Your task to perform on an android device: Show me productivity apps on the Play Store Image 0: 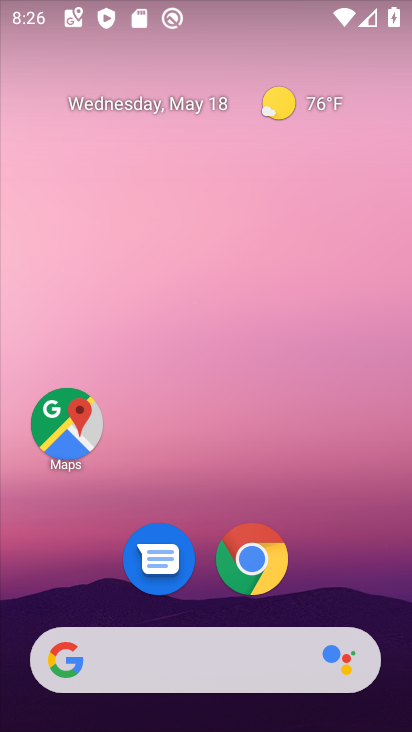
Step 0: drag from (328, 569) to (352, 55)
Your task to perform on an android device: Show me productivity apps on the Play Store Image 1: 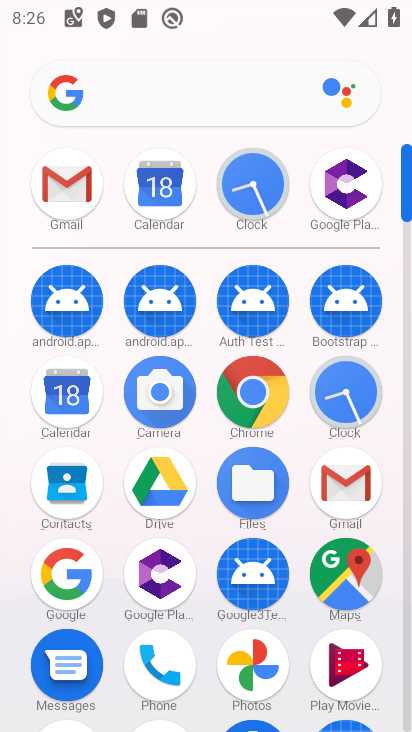
Step 1: drag from (203, 526) to (240, 137)
Your task to perform on an android device: Show me productivity apps on the Play Store Image 2: 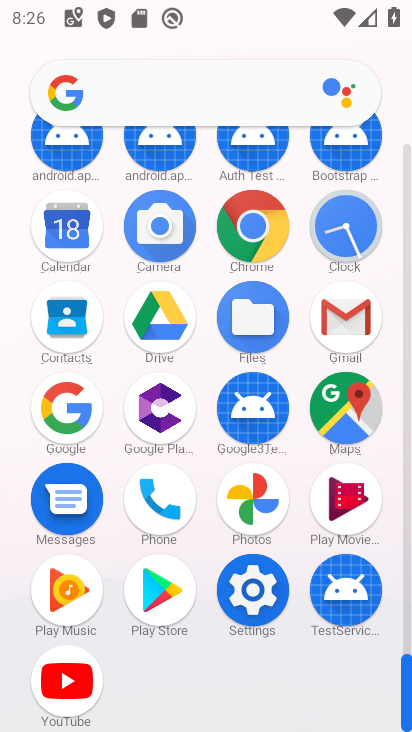
Step 2: click (150, 572)
Your task to perform on an android device: Show me productivity apps on the Play Store Image 3: 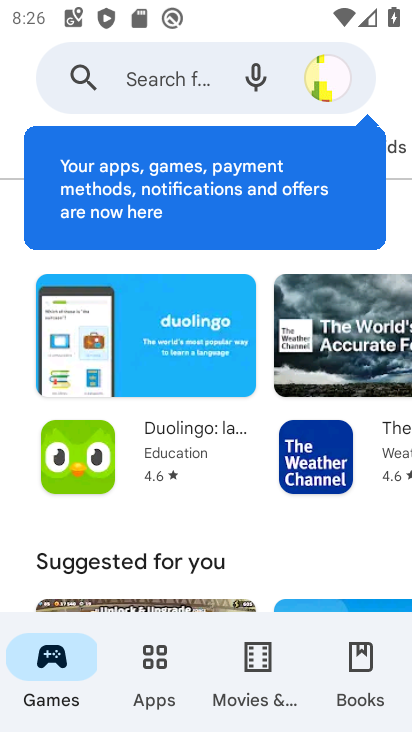
Step 3: click (154, 682)
Your task to perform on an android device: Show me productivity apps on the Play Store Image 4: 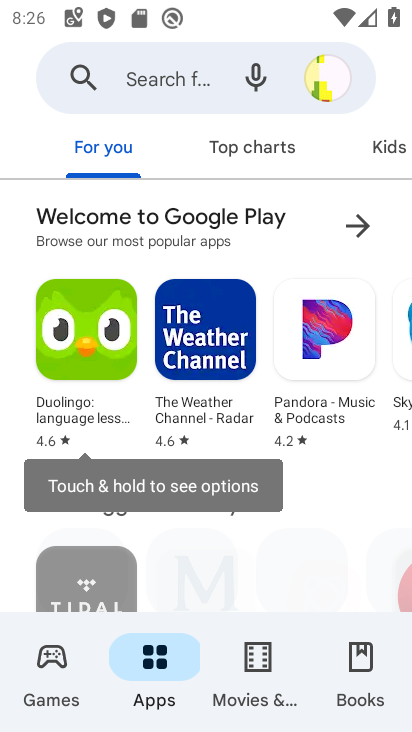
Step 4: drag from (342, 165) to (8, 171)
Your task to perform on an android device: Show me productivity apps on the Play Store Image 5: 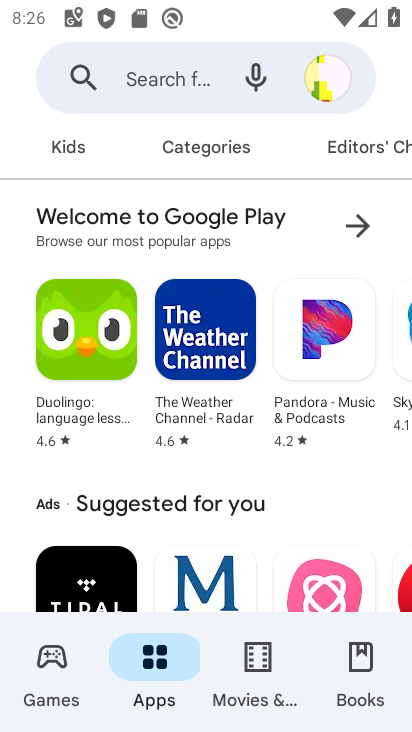
Step 5: click (180, 160)
Your task to perform on an android device: Show me productivity apps on the Play Store Image 6: 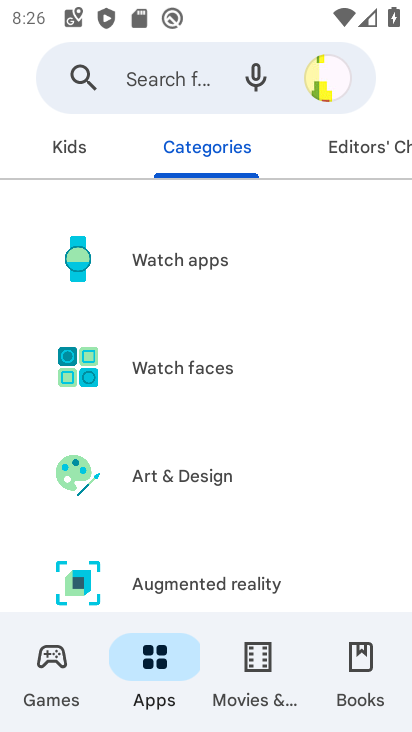
Step 6: drag from (277, 491) to (303, 63)
Your task to perform on an android device: Show me productivity apps on the Play Store Image 7: 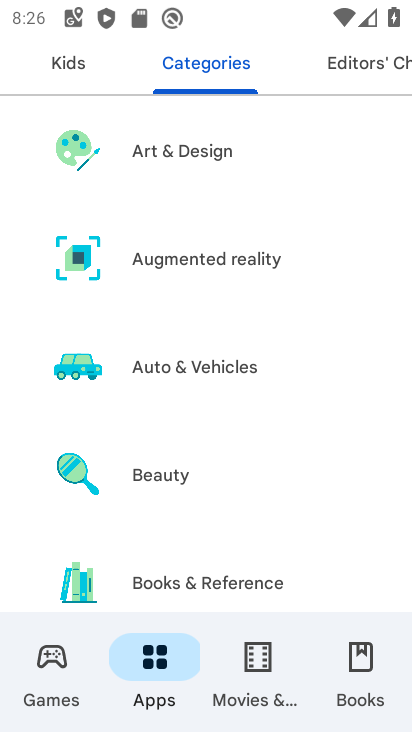
Step 7: drag from (280, 546) to (303, 96)
Your task to perform on an android device: Show me productivity apps on the Play Store Image 8: 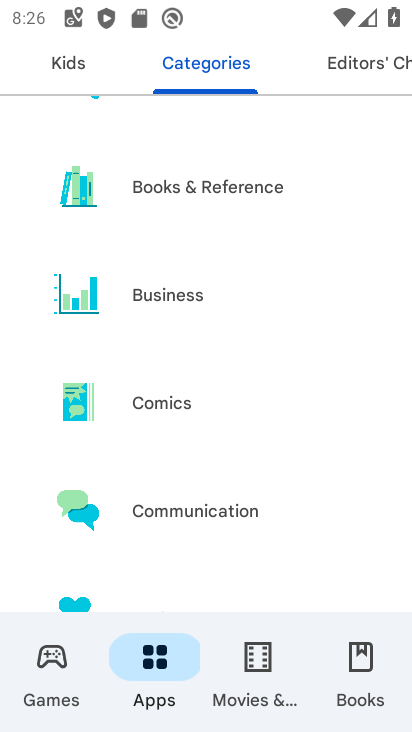
Step 8: drag from (278, 502) to (284, 100)
Your task to perform on an android device: Show me productivity apps on the Play Store Image 9: 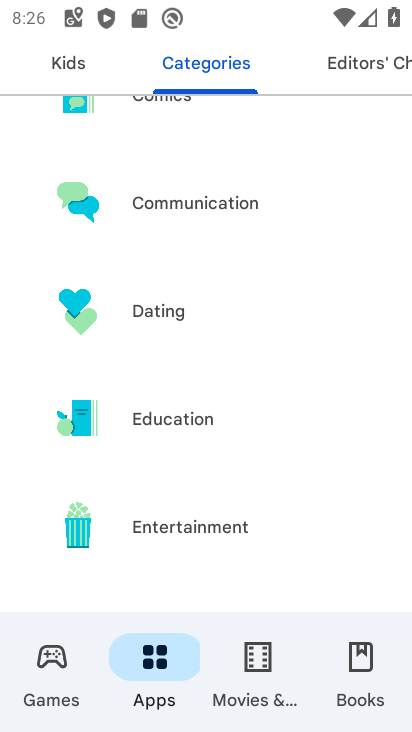
Step 9: drag from (282, 559) to (317, 101)
Your task to perform on an android device: Show me productivity apps on the Play Store Image 10: 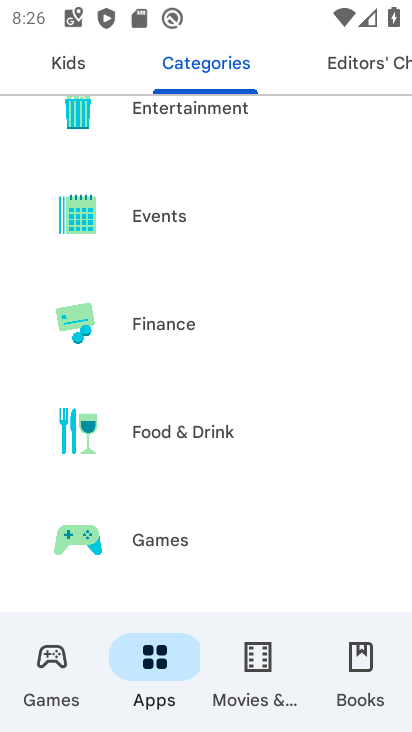
Step 10: drag from (246, 542) to (242, 46)
Your task to perform on an android device: Show me productivity apps on the Play Store Image 11: 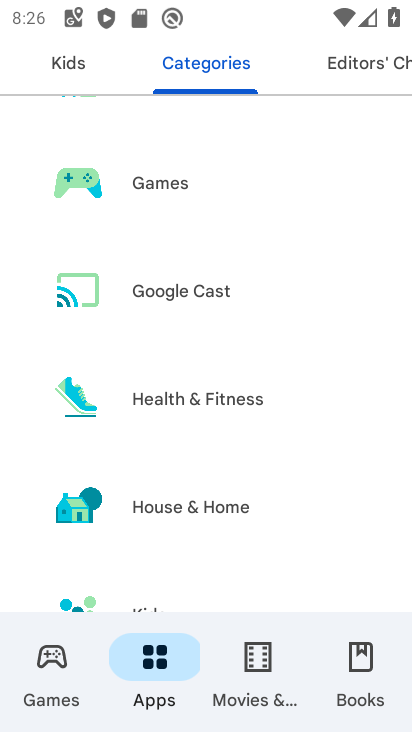
Step 11: drag from (272, 504) to (236, 90)
Your task to perform on an android device: Show me productivity apps on the Play Store Image 12: 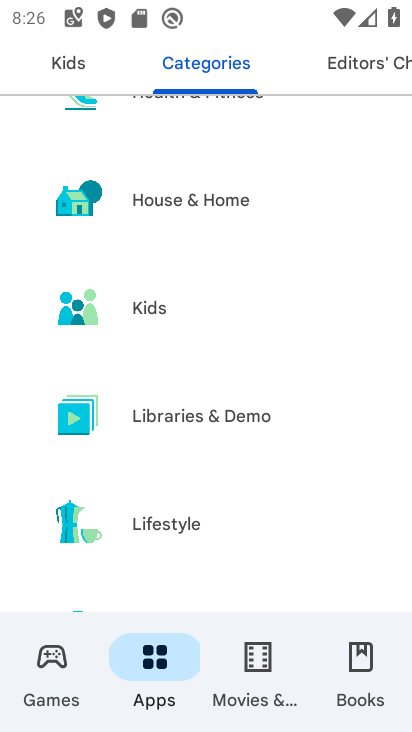
Step 12: drag from (266, 566) to (255, 115)
Your task to perform on an android device: Show me productivity apps on the Play Store Image 13: 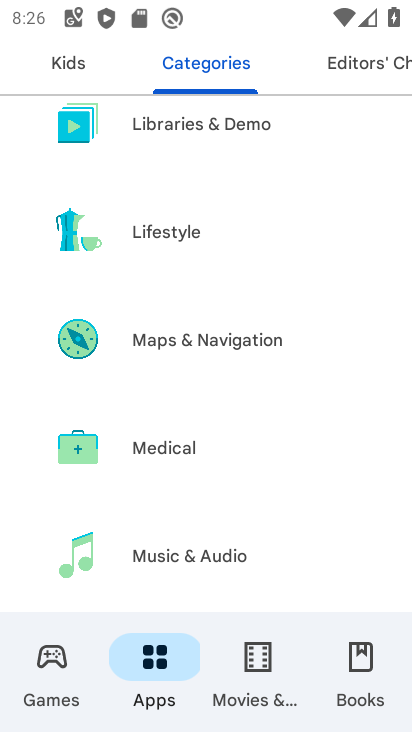
Step 13: drag from (304, 549) to (291, 164)
Your task to perform on an android device: Show me productivity apps on the Play Store Image 14: 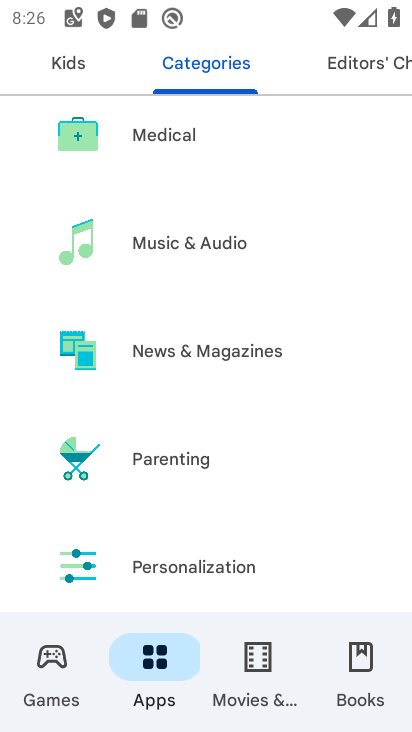
Step 14: drag from (274, 538) to (300, 167)
Your task to perform on an android device: Show me productivity apps on the Play Store Image 15: 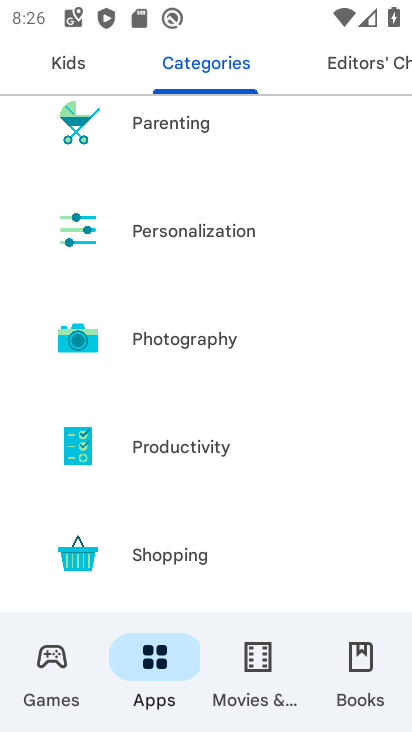
Step 15: click (175, 466)
Your task to perform on an android device: Show me productivity apps on the Play Store Image 16: 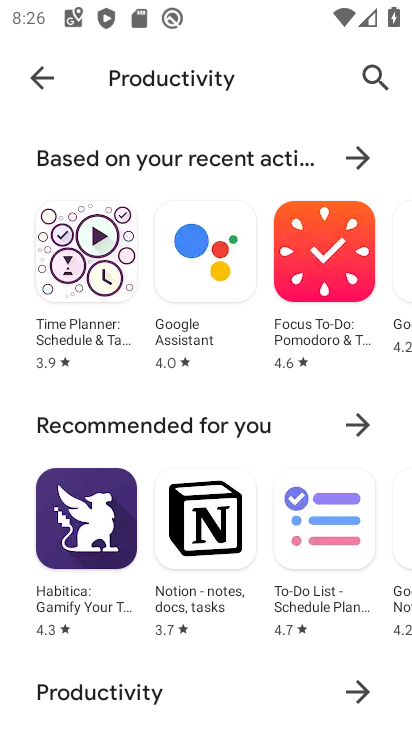
Step 16: drag from (272, 547) to (255, 294)
Your task to perform on an android device: Show me productivity apps on the Play Store Image 17: 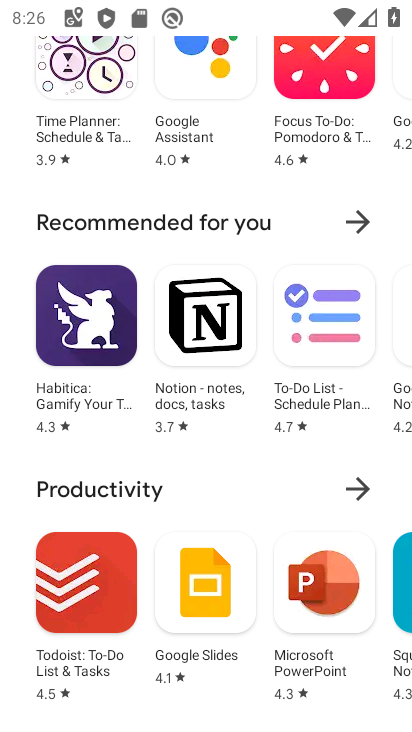
Step 17: click (328, 496)
Your task to perform on an android device: Show me productivity apps on the Play Store Image 18: 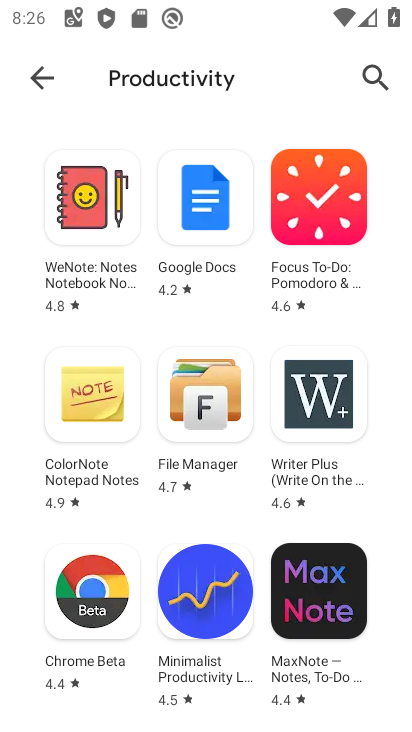
Step 18: task complete